Your task to perform on an android device: open sync settings in chrome Image 0: 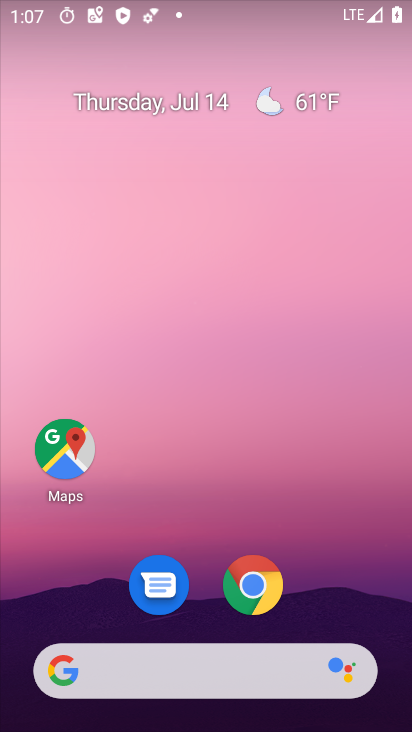
Step 0: click (252, 575)
Your task to perform on an android device: open sync settings in chrome Image 1: 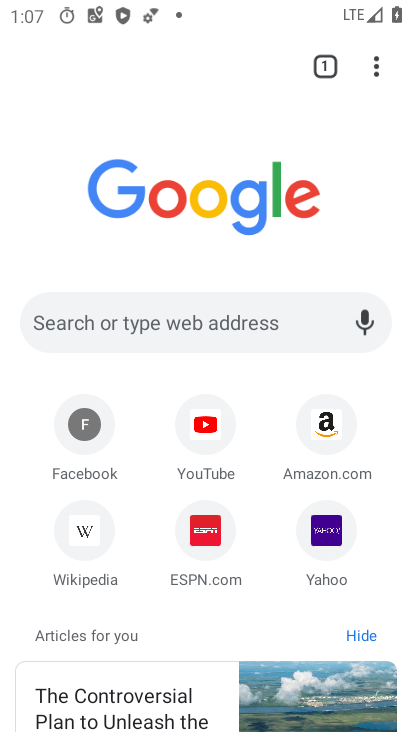
Step 1: click (377, 66)
Your task to perform on an android device: open sync settings in chrome Image 2: 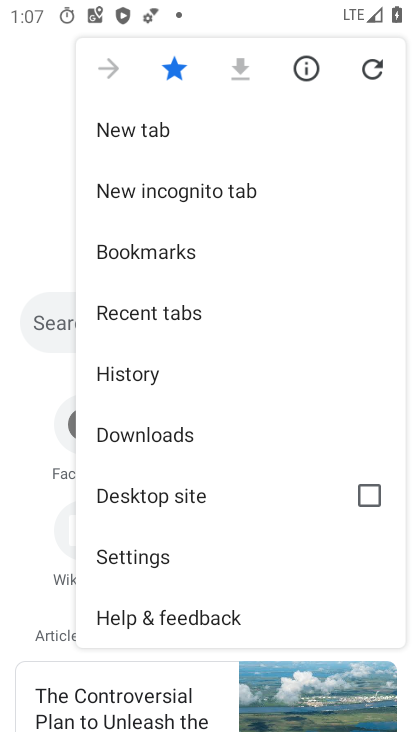
Step 2: click (161, 551)
Your task to perform on an android device: open sync settings in chrome Image 3: 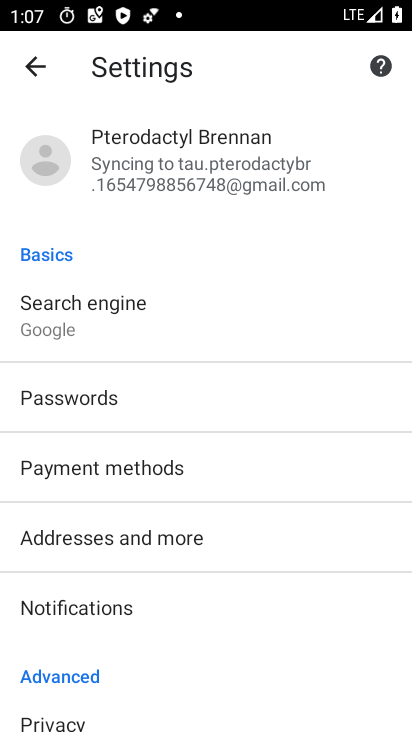
Step 3: click (235, 164)
Your task to perform on an android device: open sync settings in chrome Image 4: 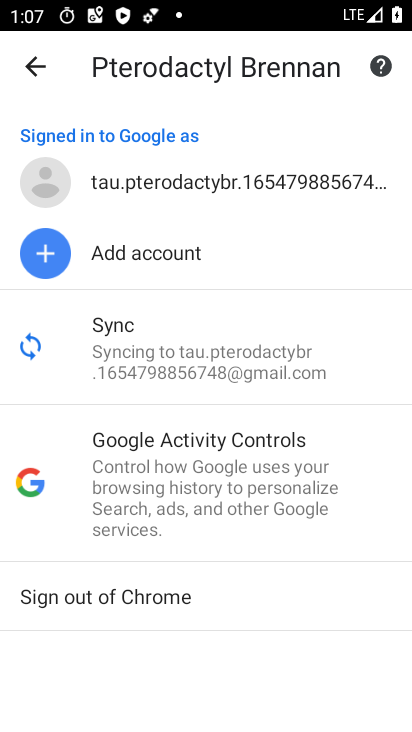
Step 4: click (204, 343)
Your task to perform on an android device: open sync settings in chrome Image 5: 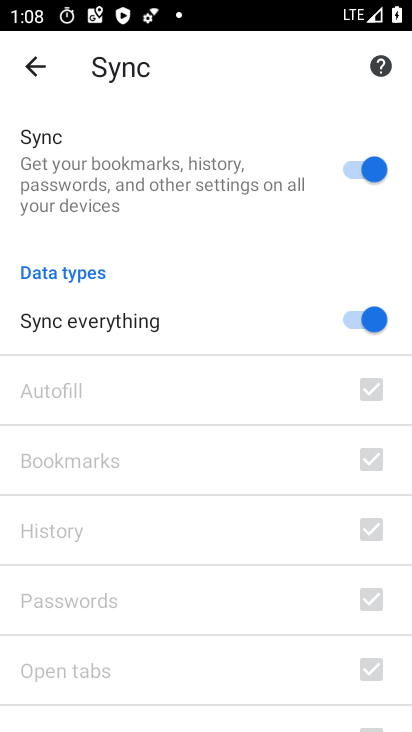
Step 5: task complete